Your task to perform on an android device: Go to settings Image 0: 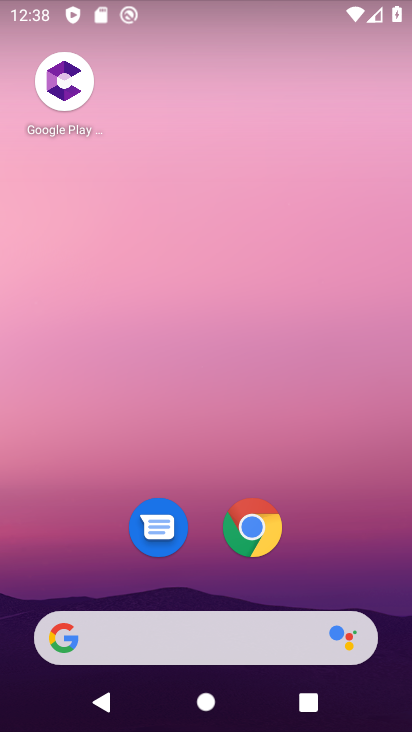
Step 0: drag from (330, 569) to (388, 23)
Your task to perform on an android device: Go to settings Image 1: 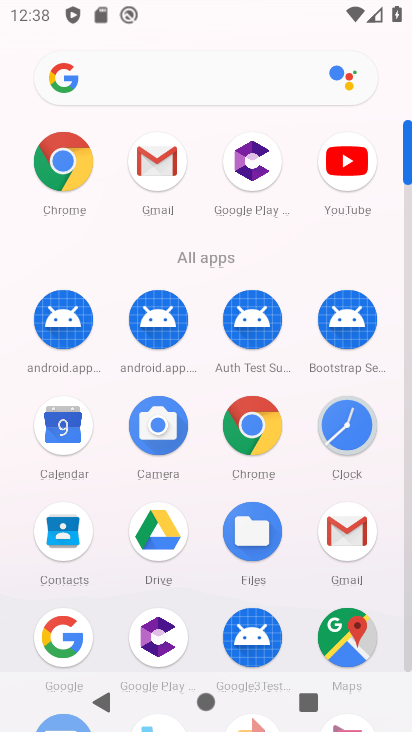
Step 1: drag from (284, 576) to (355, 180)
Your task to perform on an android device: Go to settings Image 2: 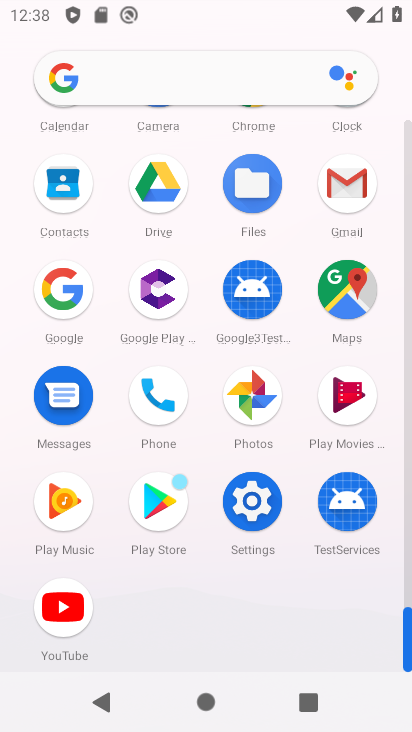
Step 2: click (257, 512)
Your task to perform on an android device: Go to settings Image 3: 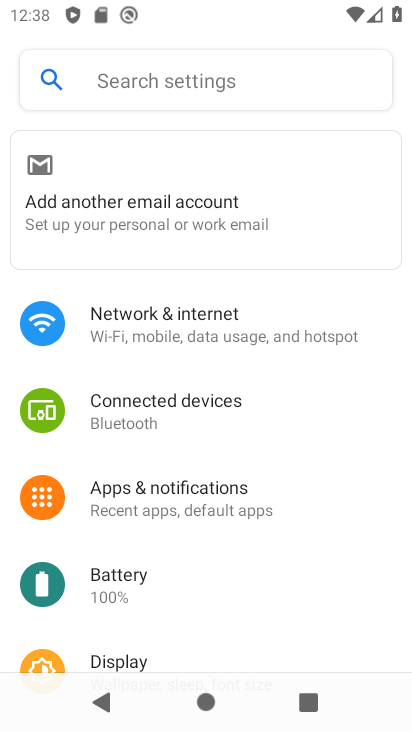
Step 3: task complete